Your task to perform on an android device: Open Chrome and go to settings Image 0: 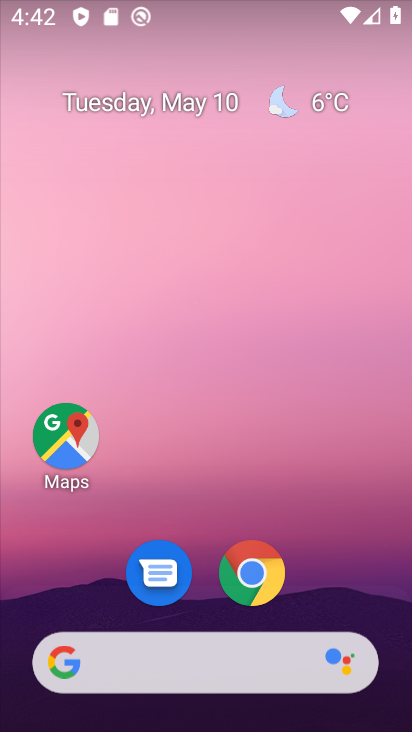
Step 0: click (266, 580)
Your task to perform on an android device: Open Chrome and go to settings Image 1: 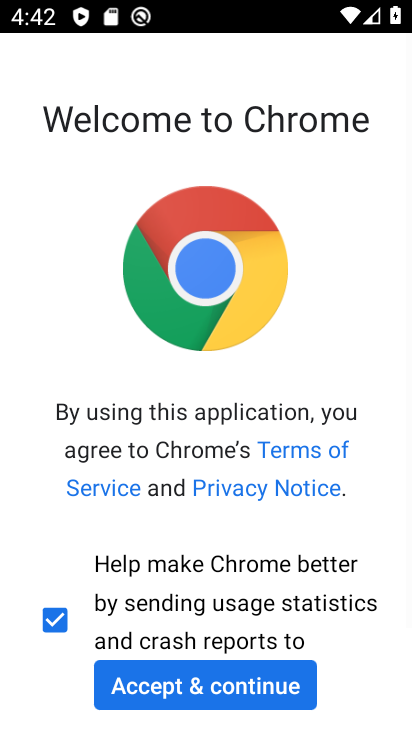
Step 1: click (259, 689)
Your task to perform on an android device: Open Chrome and go to settings Image 2: 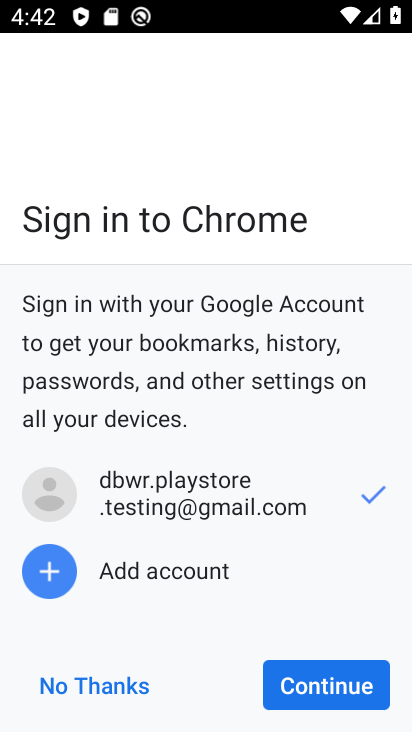
Step 2: click (343, 674)
Your task to perform on an android device: Open Chrome and go to settings Image 3: 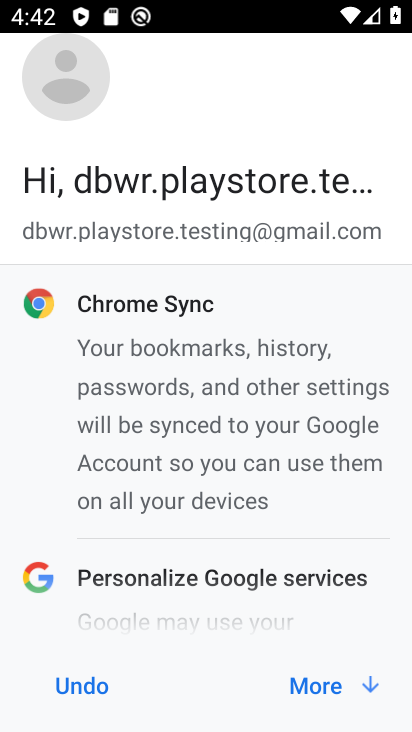
Step 3: click (345, 685)
Your task to perform on an android device: Open Chrome and go to settings Image 4: 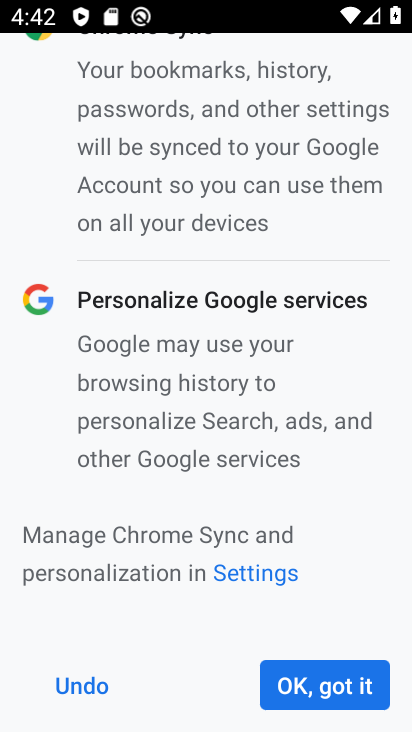
Step 4: click (345, 685)
Your task to perform on an android device: Open Chrome and go to settings Image 5: 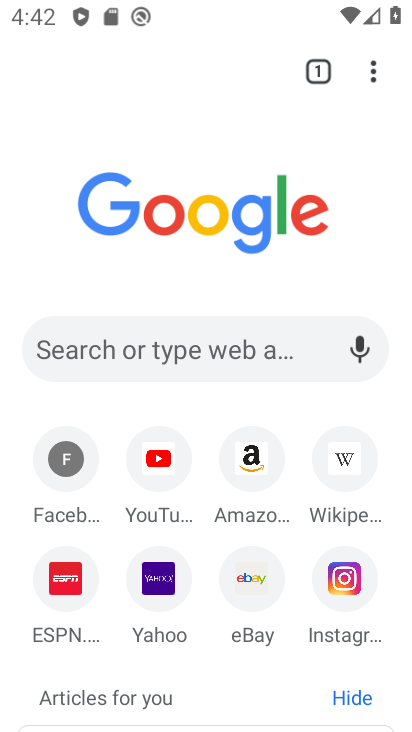
Step 5: click (374, 73)
Your task to perform on an android device: Open Chrome and go to settings Image 6: 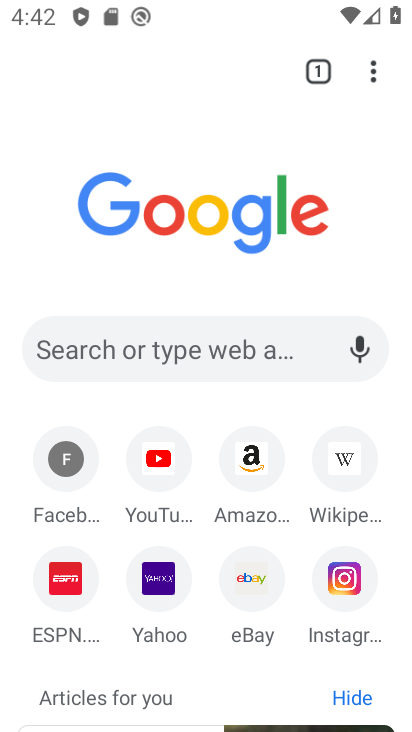
Step 6: task complete